Your task to perform on an android device: Go to Yahoo.com Image 0: 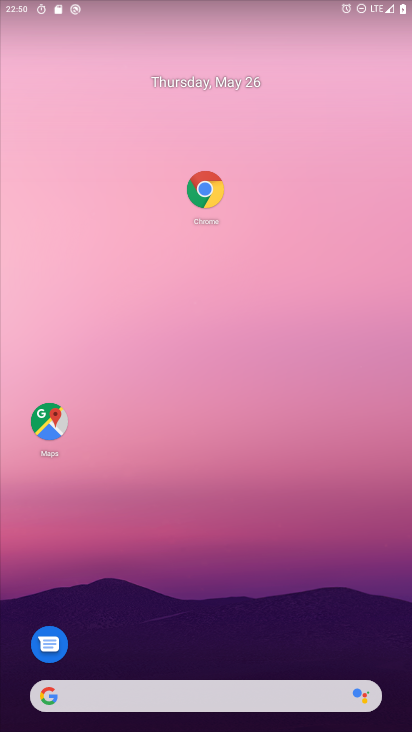
Step 0: drag from (212, 661) to (209, 246)
Your task to perform on an android device: Go to Yahoo.com Image 1: 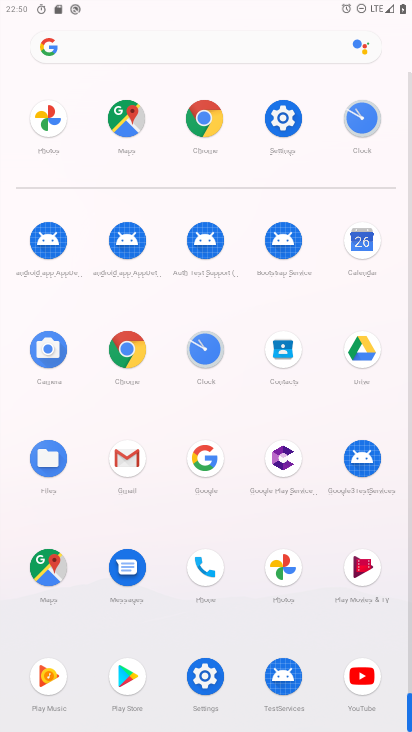
Step 1: click (146, 39)
Your task to perform on an android device: Go to Yahoo.com Image 2: 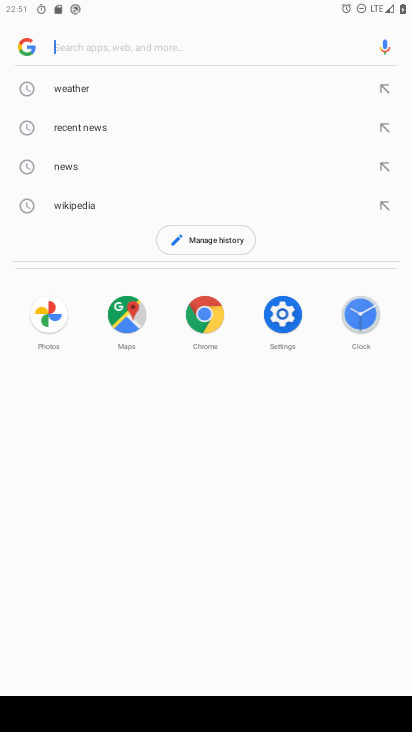
Step 2: type "Yahoo.com"
Your task to perform on an android device: Go to Yahoo.com Image 3: 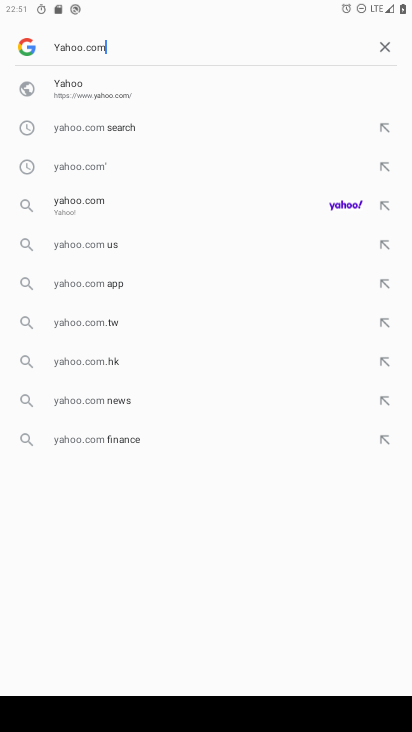
Step 3: type ""
Your task to perform on an android device: Go to Yahoo.com Image 4: 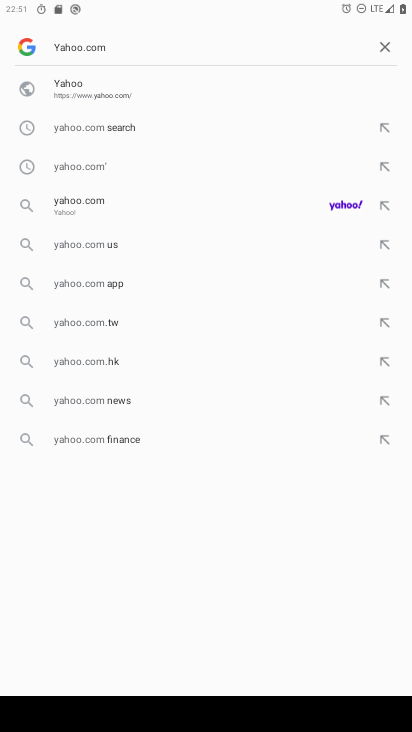
Step 4: click (181, 213)
Your task to perform on an android device: Go to Yahoo.com Image 5: 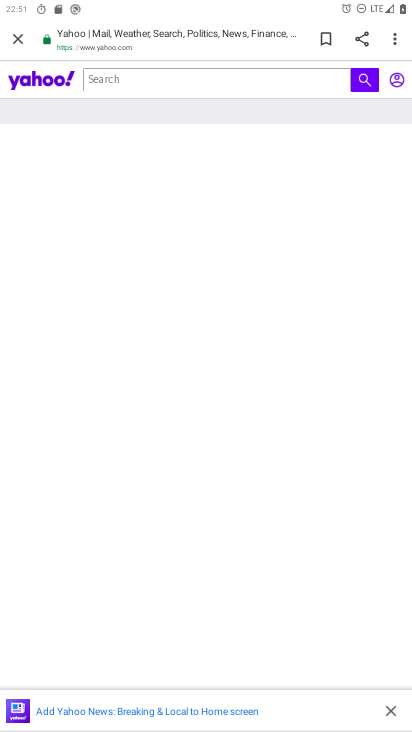
Step 5: task complete